Your task to perform on an android device: Search for seafood restaurants on Google Maps Image 0: 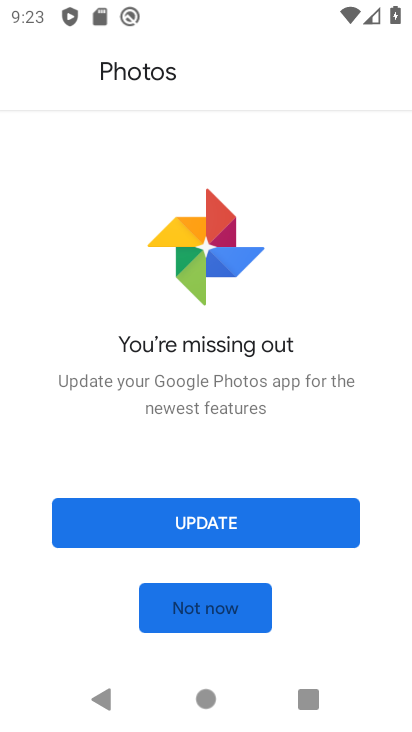
Step 0: press home button
Your task to perform on an android device: Search for seafood restaurants on Google Maps Image 1: 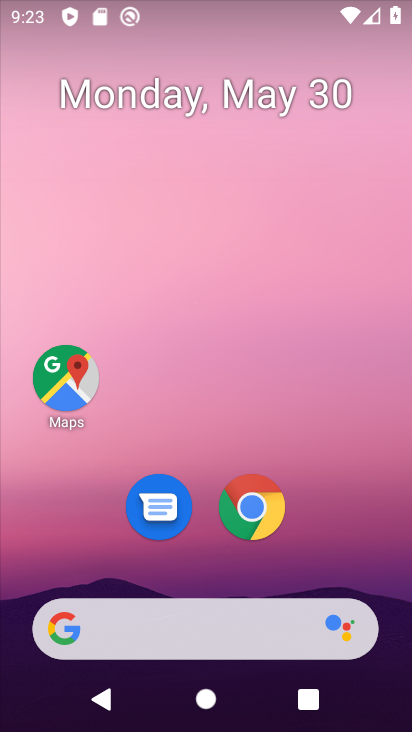
Step 1: click (61, 392)
Your task to perform on an android device: Search for seafood restaurants on Google Maps Image 2: 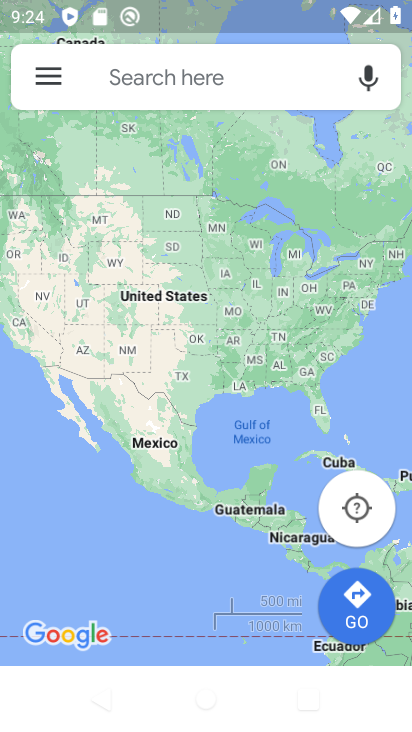
Step 2: click (152, 76)
Your task to perform on an android device: Search for seafood restaurants on Google Maps Image 3: 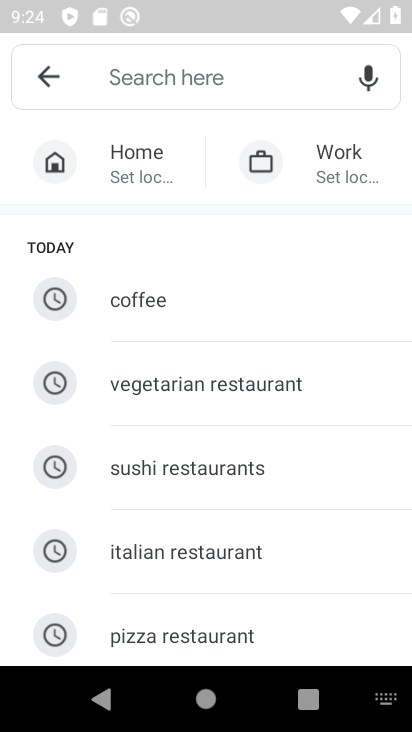
Step 3: drag from (159, 629) to (193, 285)
Your task to perform on an android device: Search for seafood restaurants on Google Maps Image 4: 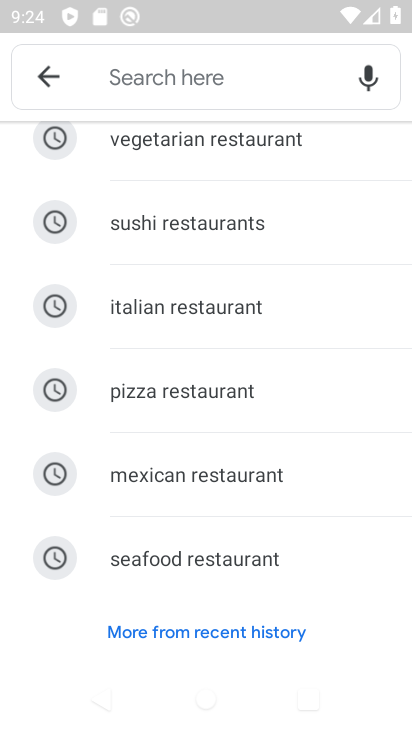
Step 4: click (170, 563)
Your task to perform on an android device: Search for seafood restaurants on Google Maps Image 5: 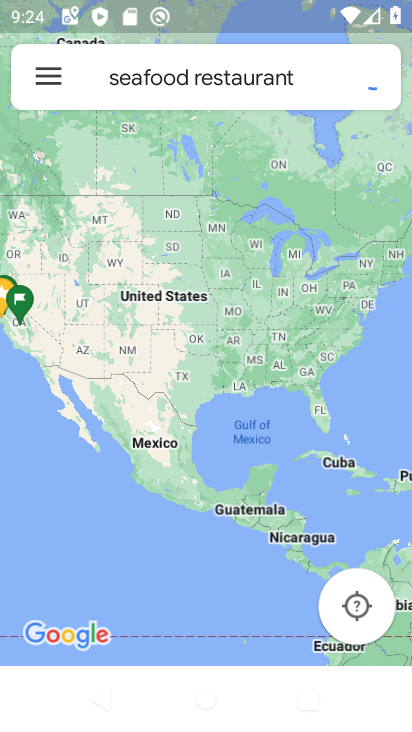
Step 5: task complete